Your task to perform on an android device: allow cookies in the chrome app Image 0: 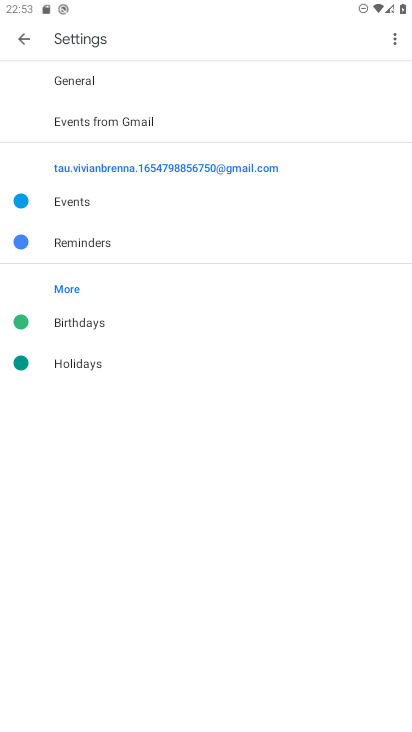
Step 0: press home button
Your task to perform on an android device: allow cookies in the chrome app Image 1: 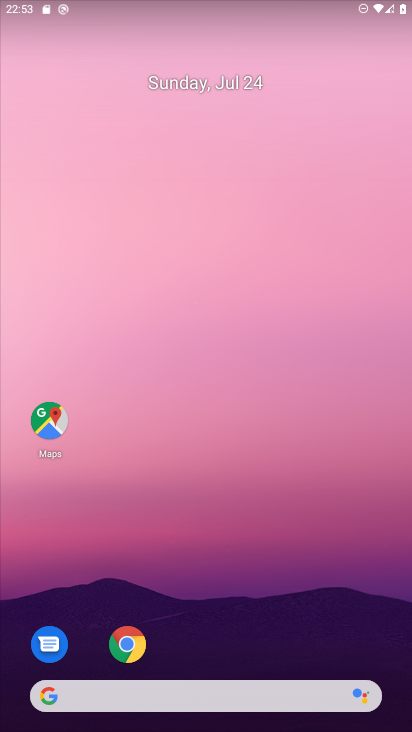
Step 1: click (126, 639)
Your task to perform on an android device: allow cookies in the chrome app Image 2: 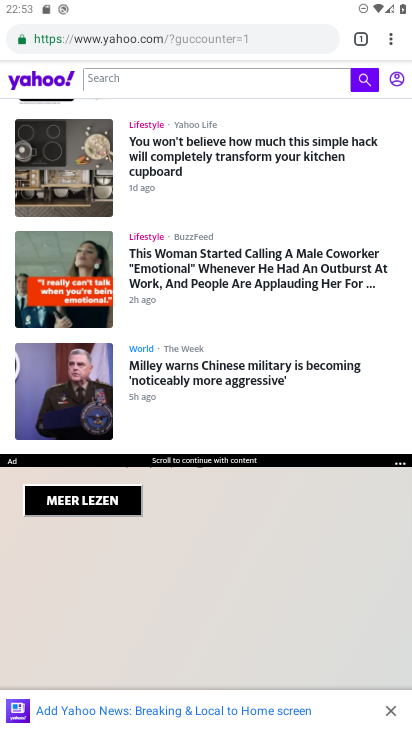
Step 2: click (393, 44)
Your task to perform on an android device: allow cookies in the chrome app Image 3: 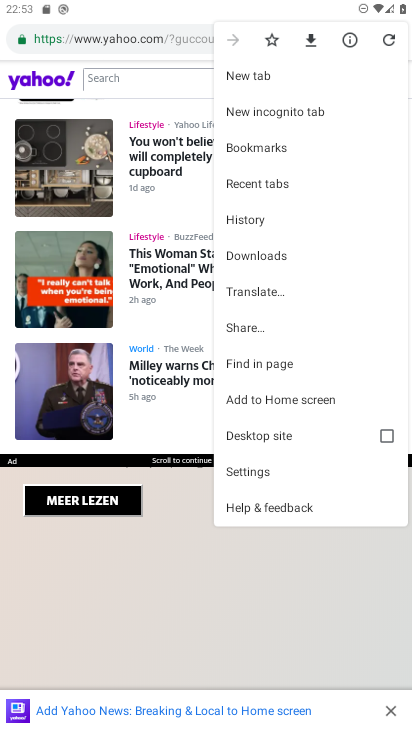
Step 3: click (257, 470)
Your task to perform on an android device: allow cookies in the chrome app Image 4: 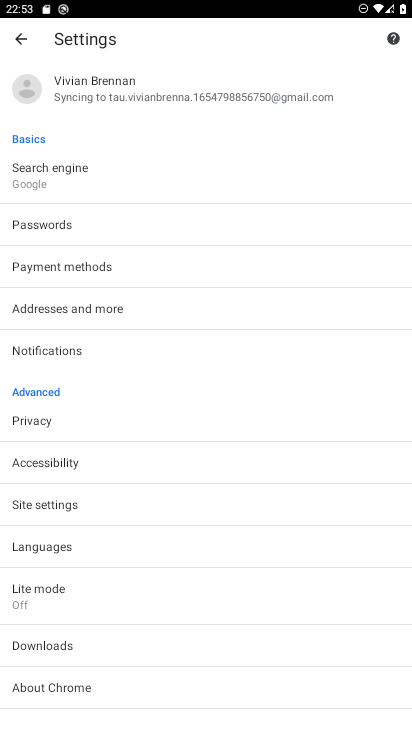
Step 4: click (46, 502)
Your task to perform on an android device: allow cookies in the chrome app Image 5: 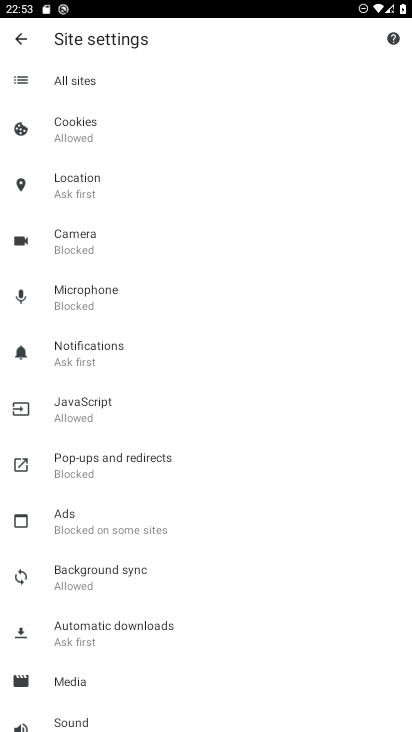
Step 5: click (77, 130)
Your task to perform on an android device: allow cookies in the chrome app Image 6: 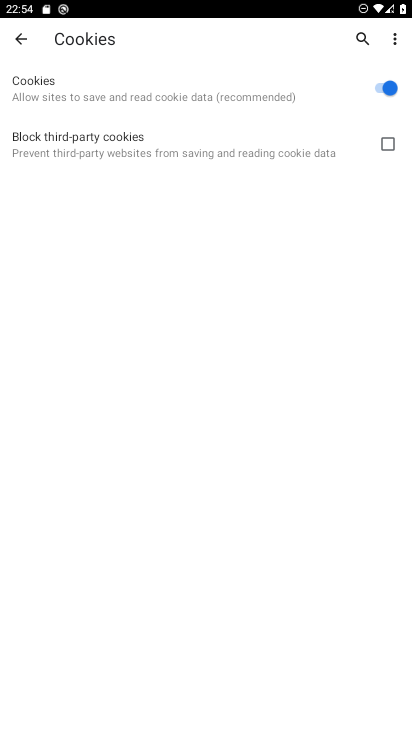
Step 6: task complete